Your task to perform on an android device: turn off smart reply in the gmail app Image 0: 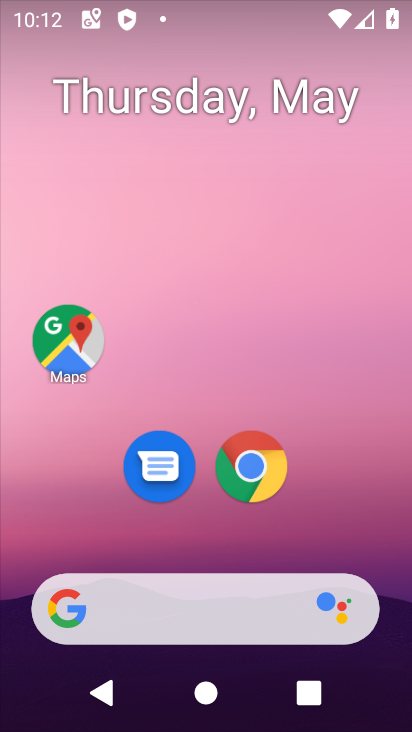
Step 0: drag from (278, 492) to (323, 199)
Your task to perform on an android device: turn off smart reply in the gmail app Image 1: 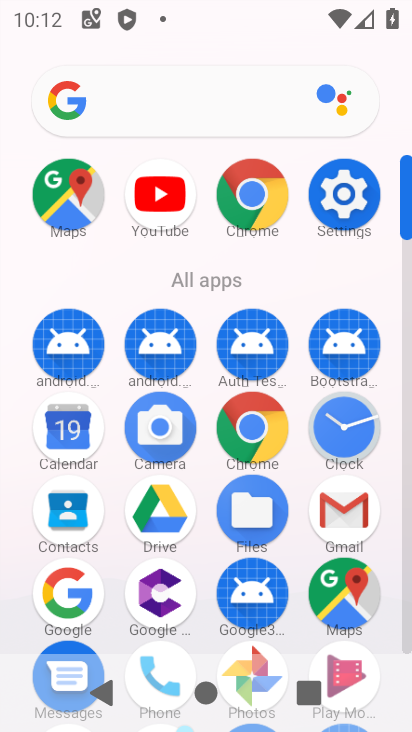
Step 1: click (351, 503)
Your task to perform on an android device: turn off smart reply in the gmail app Image 2: 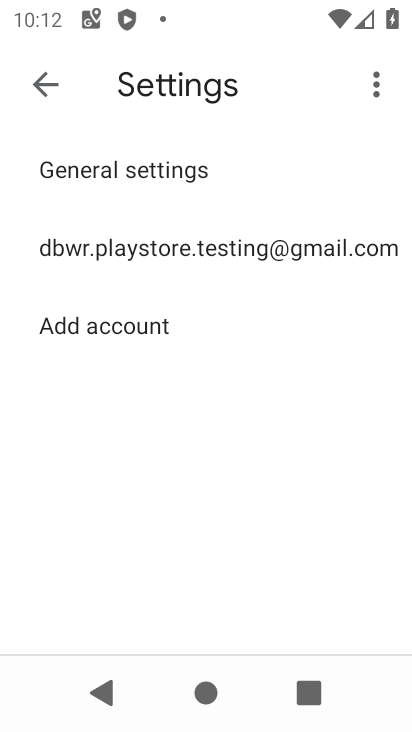
Step 2: click (182, 250)
Your task to perform on an android device: turn off smart reply in the gmail app Image 3: 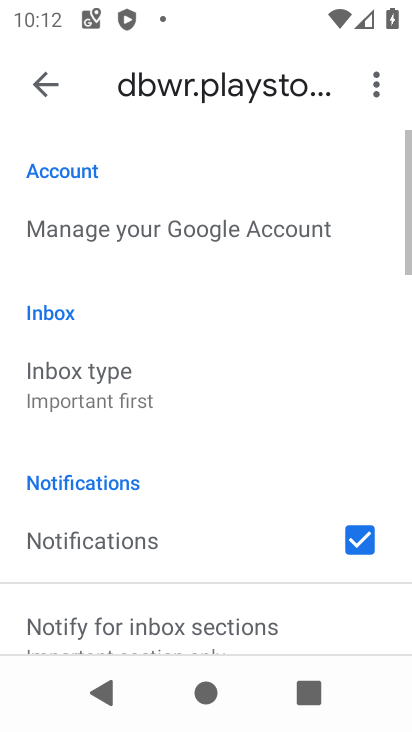
Step 3: drag from (149, 487) to (178, 259)
Your task to perform on an android device: turn off smart reply in the gmail app Image 4: 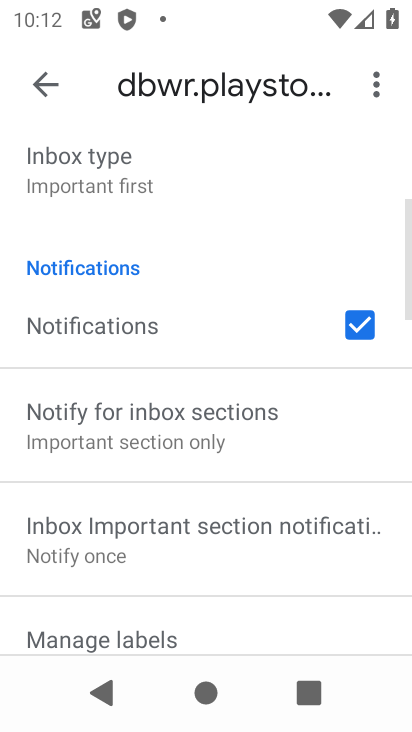
Step 4: drag from (226, 503) to (261, 205)
Your task to perform on an android device: turn off smart reply in the gmail app Image 5: 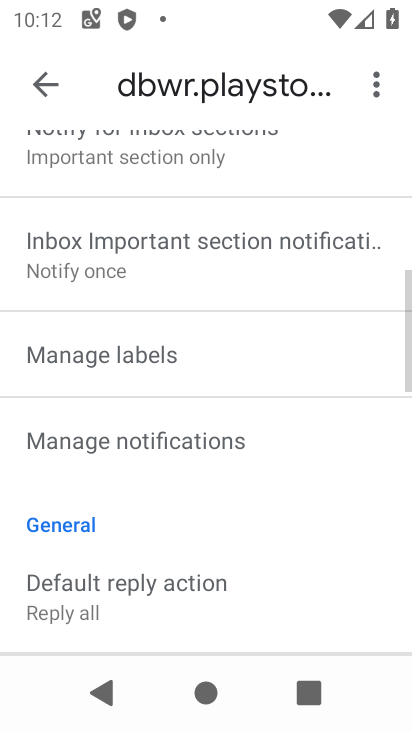
Step 5: drag from (145, 590) to (217, 276)
Your task to perform on an android device: turn off smart reply in the gmail app Image 6: 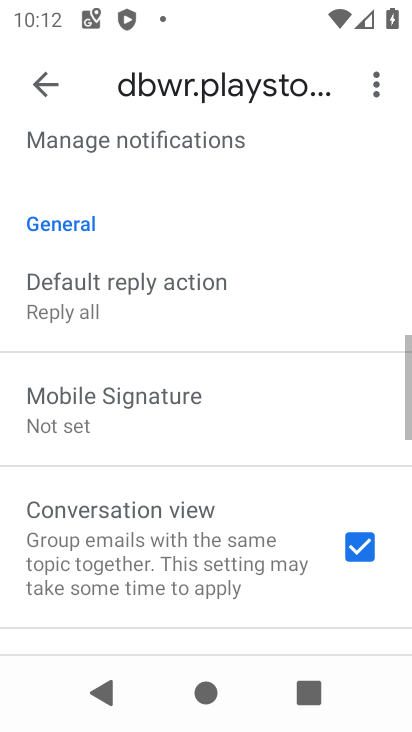
Step 6: drag from (223, 542) to (292, 247)
Your task to perform on an android device: turn off smart reply in the gmail app Image 7: 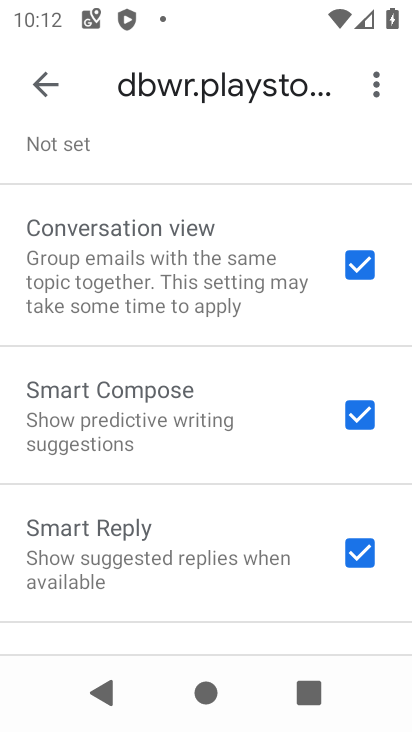
Step 7: click (359, 554)
Your task to perform on an android device: turn off smart reply in the gmail app Image 8: 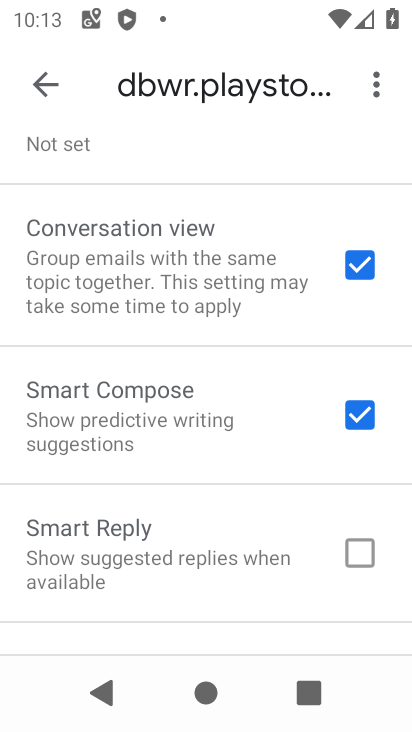
Step 8: task complete